Your task to perform on an android device: turn off data saver in the chrome app Image 0: 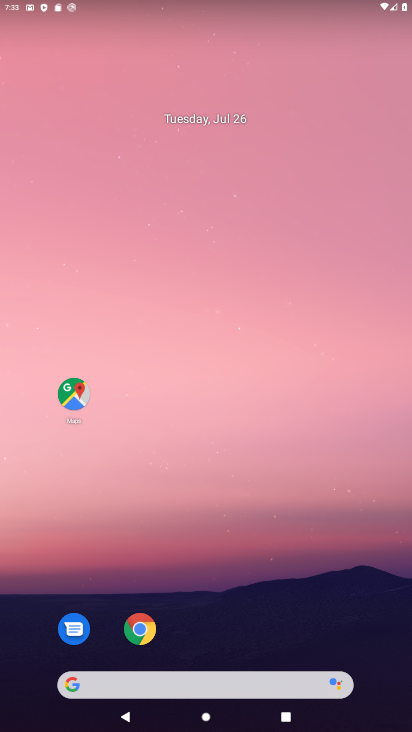
Step 0: press home button
Your task to perform on an android device: turn off data saver in the chrome app Image 1: 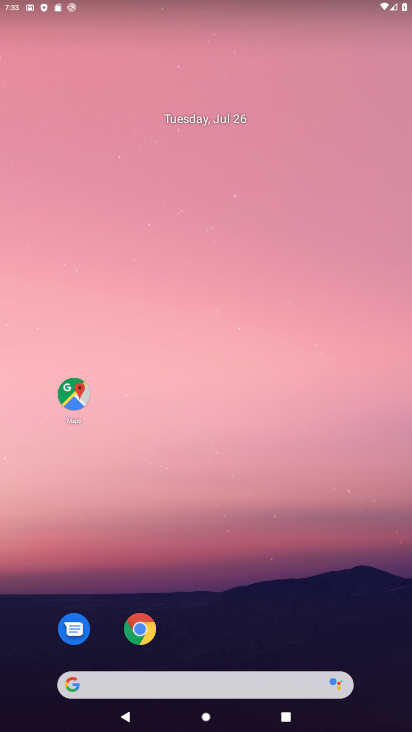
Step 1: click (136, 624)
Your task to perform on an android device: turn off data saver in the chrome app Image 2: 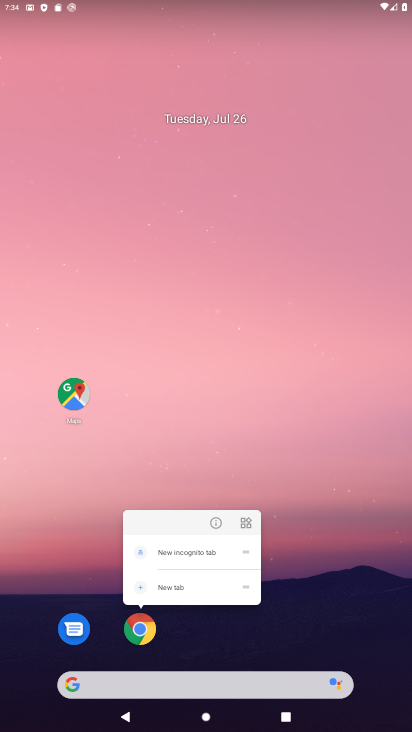
Step 2: click (229, 311)
Your task to perform on an android device: turn off data saver in the chrome app Image 3: 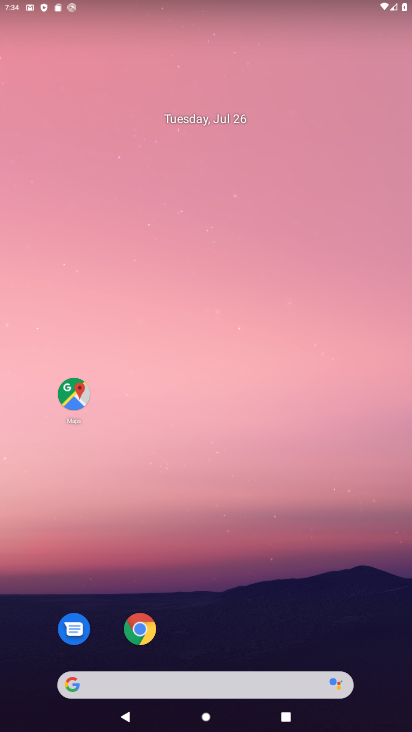
Step 3: drag from (218, 656) to (230, 0)
Your task to perform on an android device: turn off data saver in the chrome app Image 4: 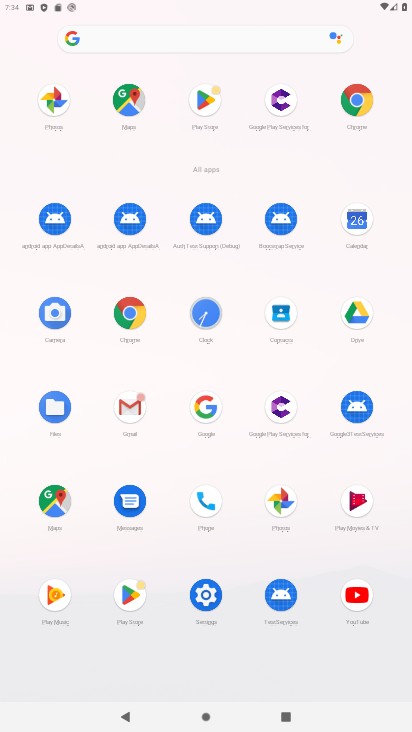
Step 4: click (354, 96)
Your task to perform on an android device: turn off data saver in the chrome app Image 5: 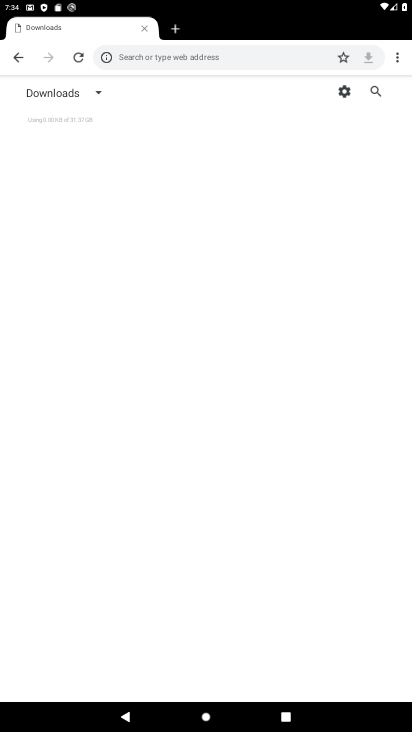
Step 5: click (397, 59)
Your task to perform on an android device: turn off data saver in the chrome app Image 6: 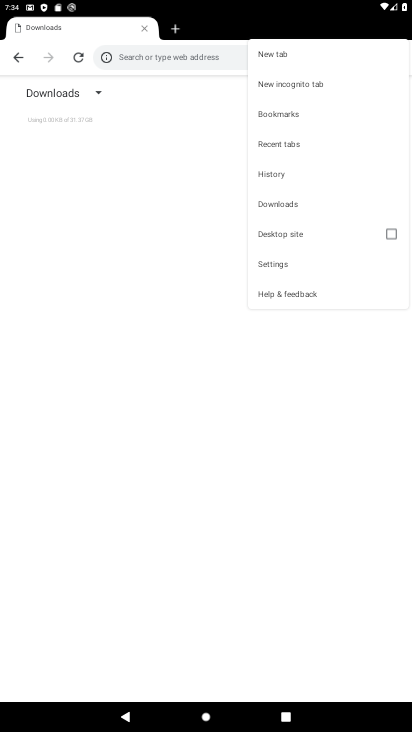
Step 6: click (296, 259)
Your task to perform on an android device: turn off data saver in the chrome app Image 7: 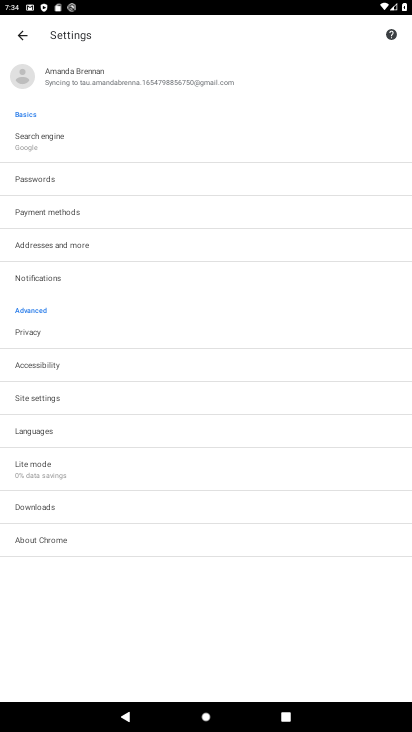
Step 7: click (59, 461)
Your task to perform on an android device: turn off data saver in the chrome app Image 8: 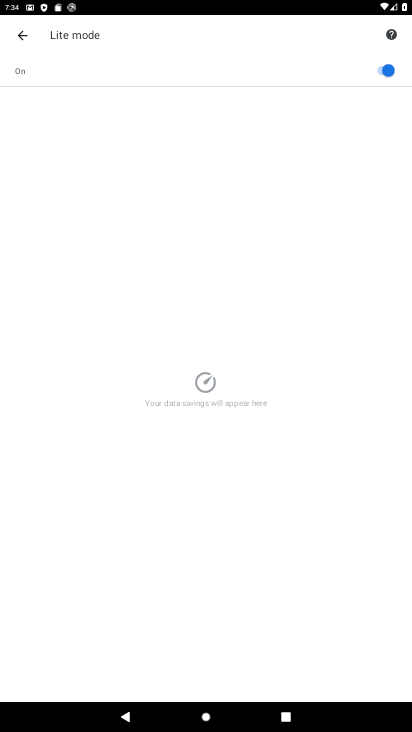
Step 8: click (381, 70)
Your task to perform on an android device: turn off data saver in the chrome app Image 9: 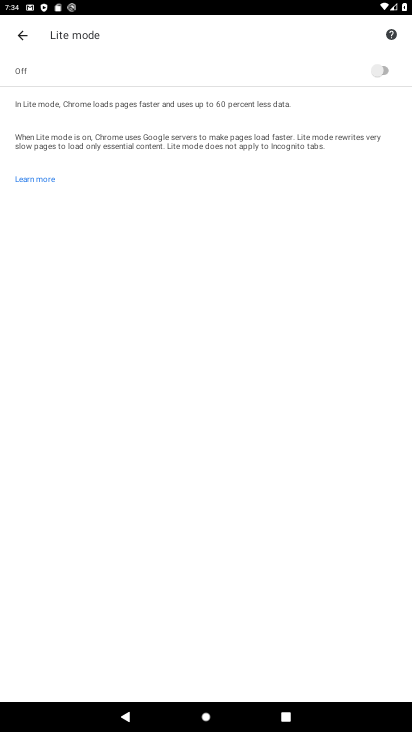
Step 9: task complete